Your task to perform on an android device: Open the web browser Image 0: 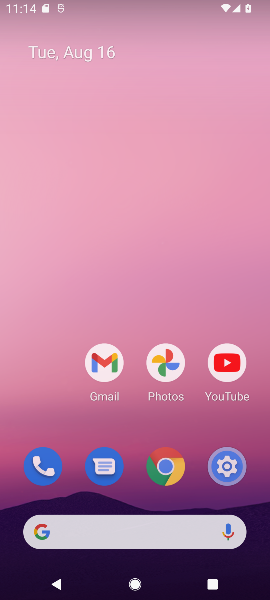
Step 0: press home button
Your task to perform on an android device: Open the web browser Image 1: 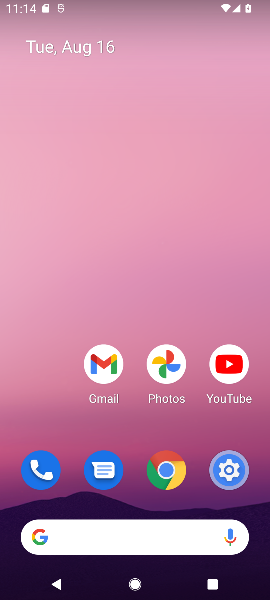
Step 1: click (106, 538)
Your task to perform on an android device: Open the web browser Image 2: 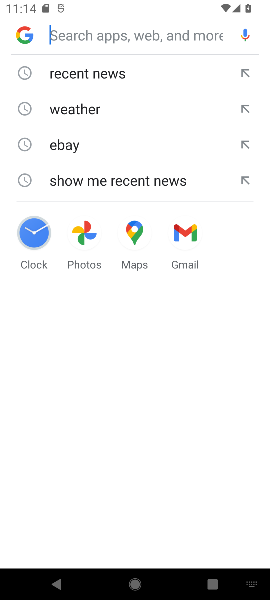
Step 2: task complete